Your task to perform on an android device: turn on data saver in the chrome app Image 0: 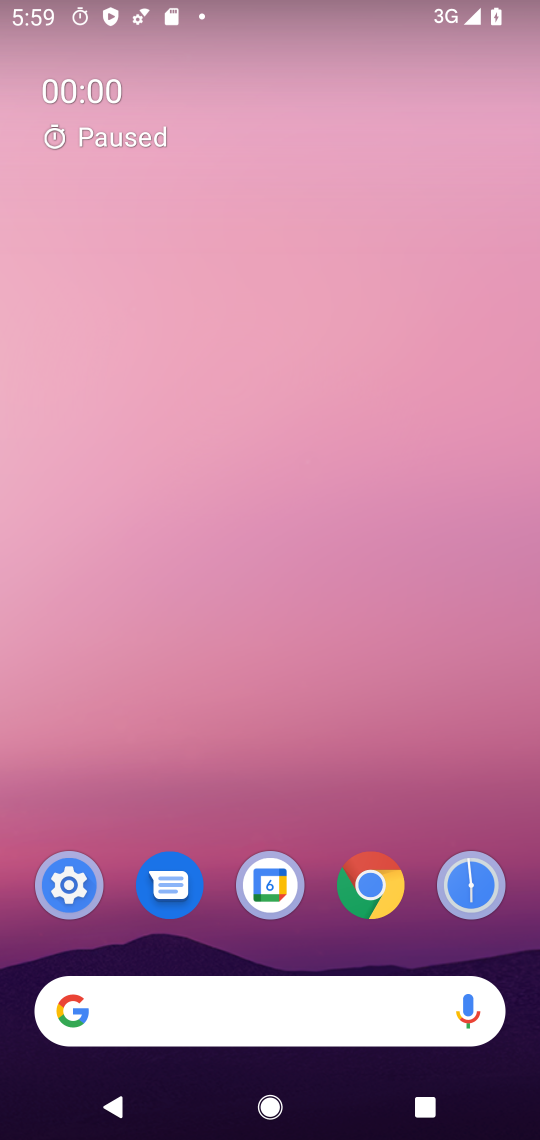
Step 0: click (379, 912)
Your task to perform on an android device: turn on data saver in the chrome app Image 1: 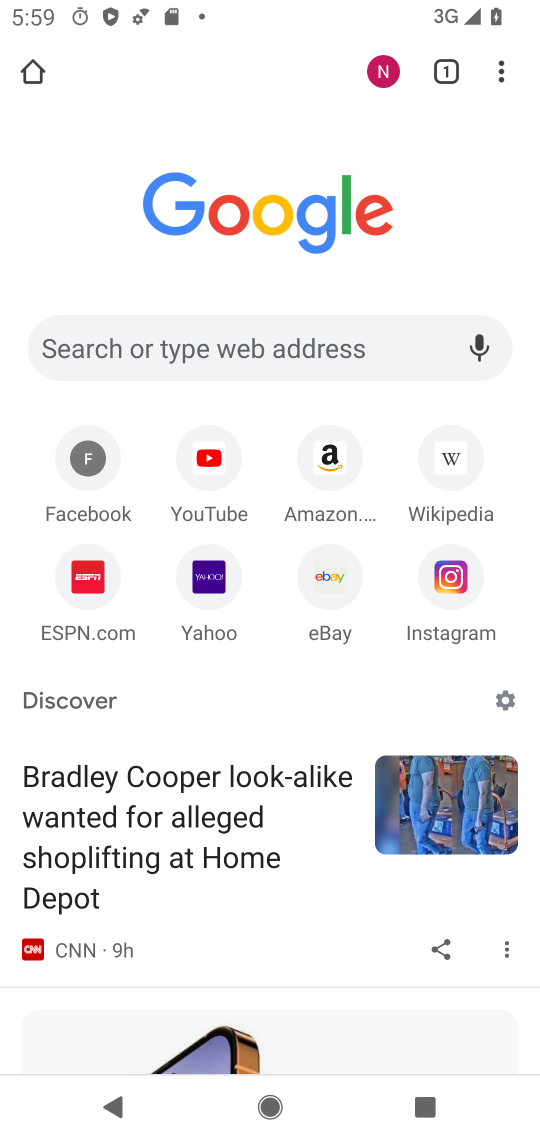
Step 1: click (505, 65)
Your task to perform on an android device: turn on data saver in the chrome app Image 2: 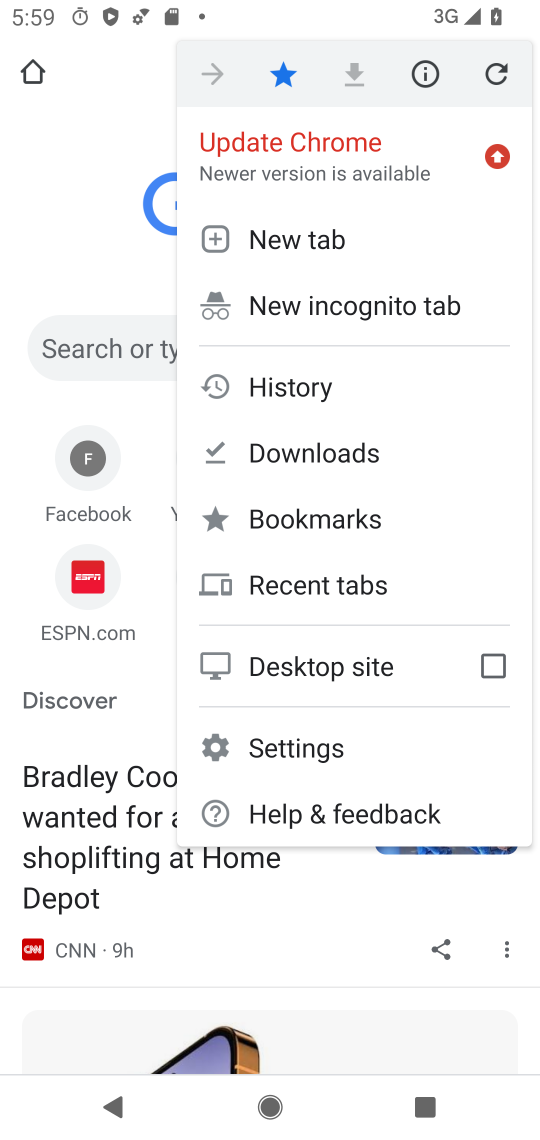
Step 2: click (284, 750)
Your task to perform on an android device: turn on data saver in the chrome app Image 3: 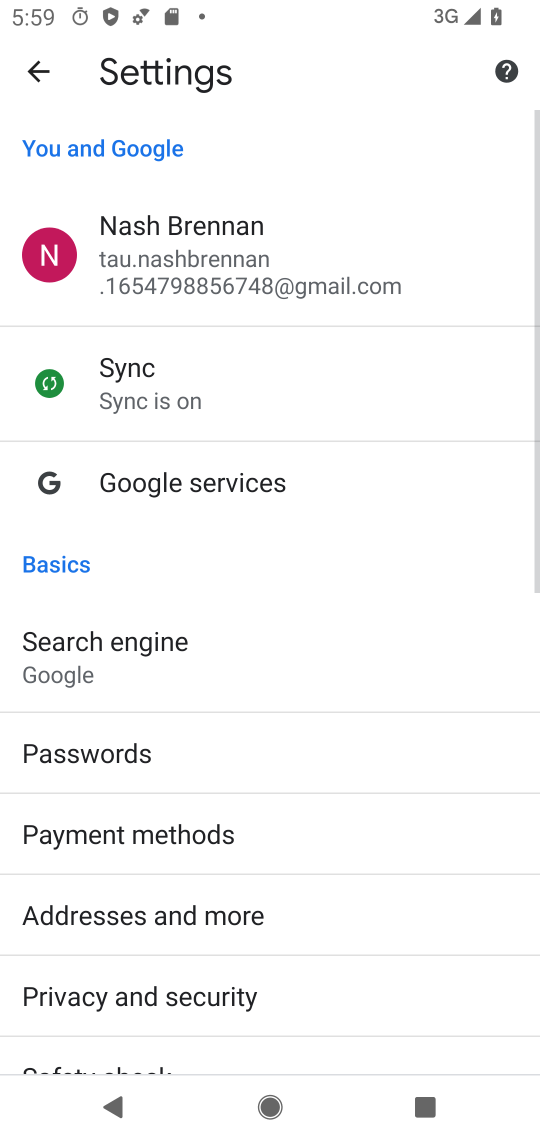
Step 3: drag from (168, 990) to (120, 107)
Your task to perform on an android device: turn on data saver in the chrome app Image 4: 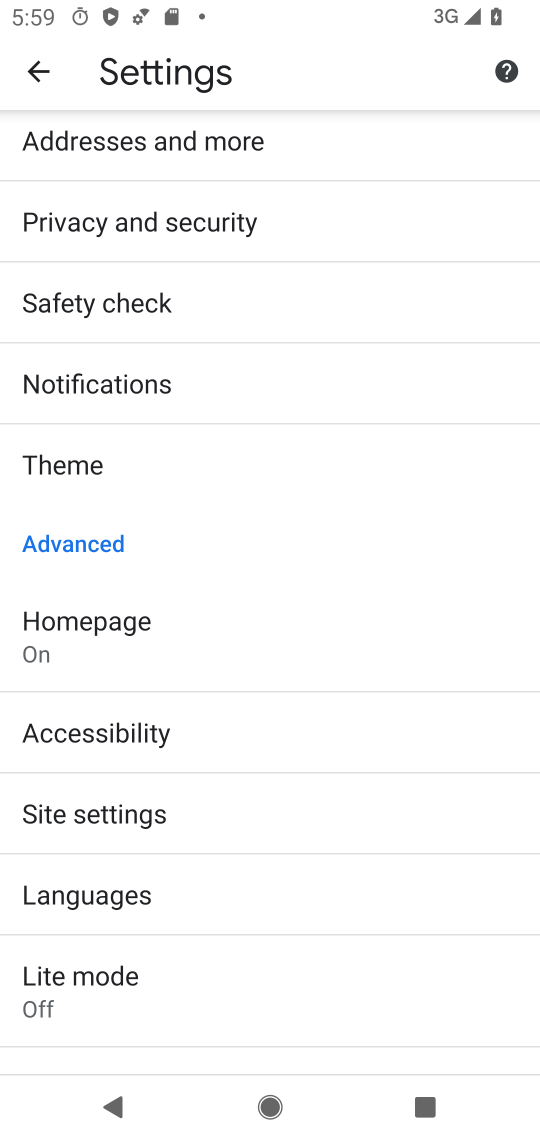
Step 4: click (81, 987)
Your task to perform on an android device: turn on data saver in the chrome app Image 5: 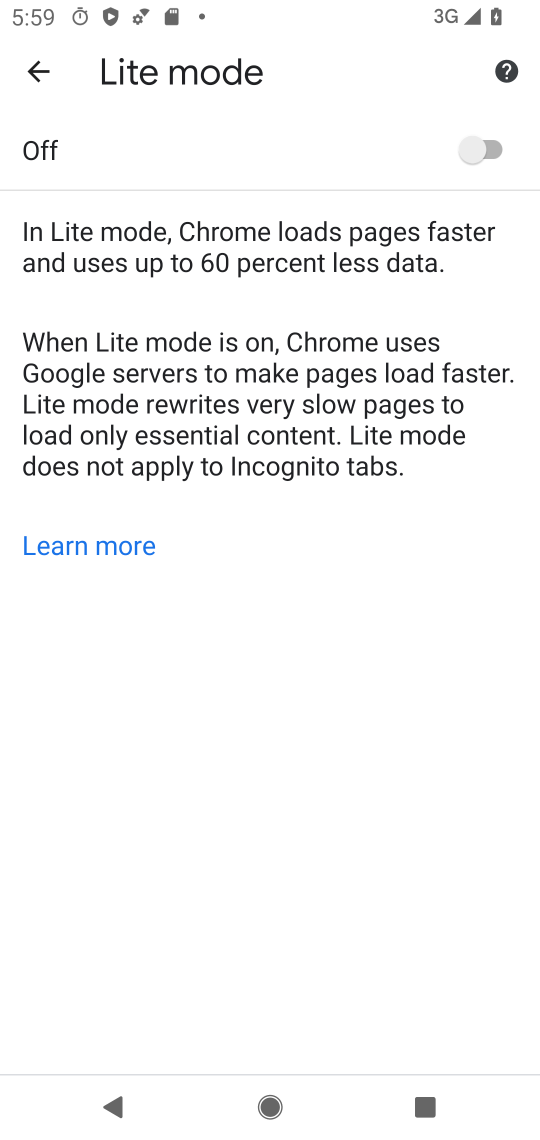
Step 5: click (487, 165)
Your task to perform on an android device: turn on data saver in the chrome app Image 6: 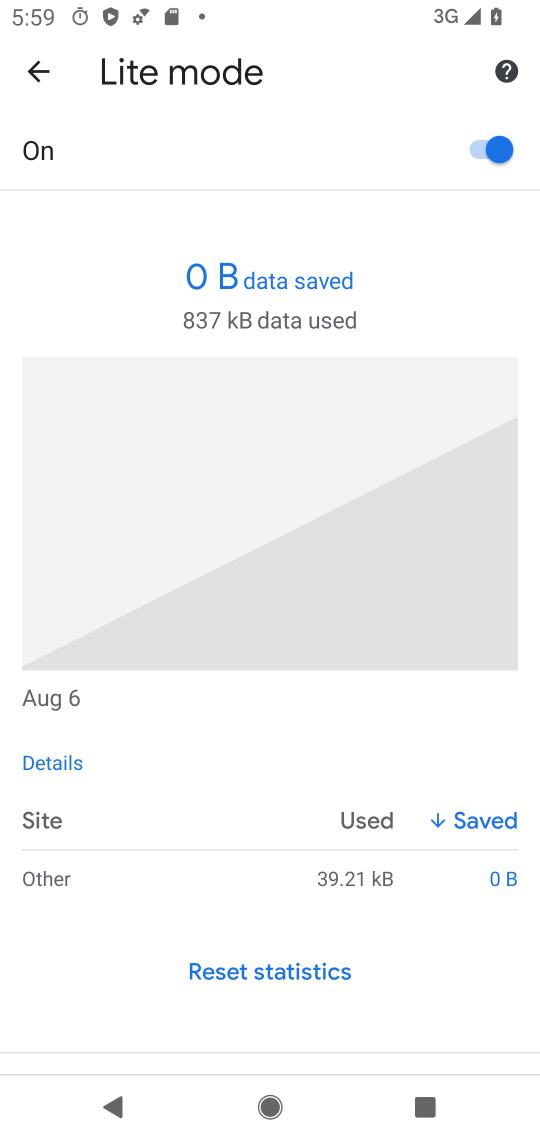
Step 6: task complete